Your task to perform on an android device: choose inbox layout in the gmail app Image 0: 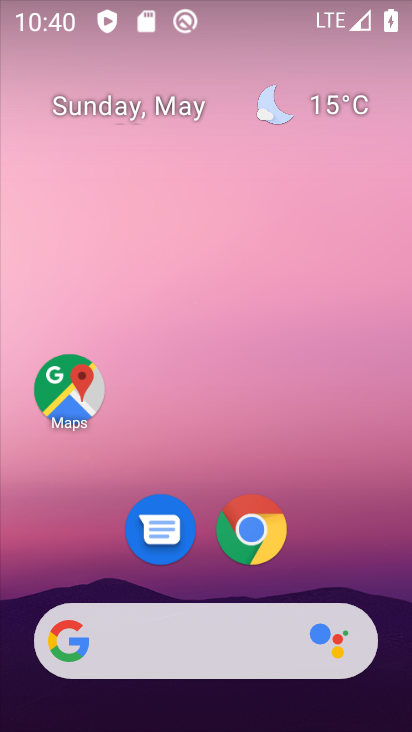
Step 0: drag from (256, 624) to (217, 56)
Your task to perform on an android device: choose inbox layout in the gmail app Image 1: 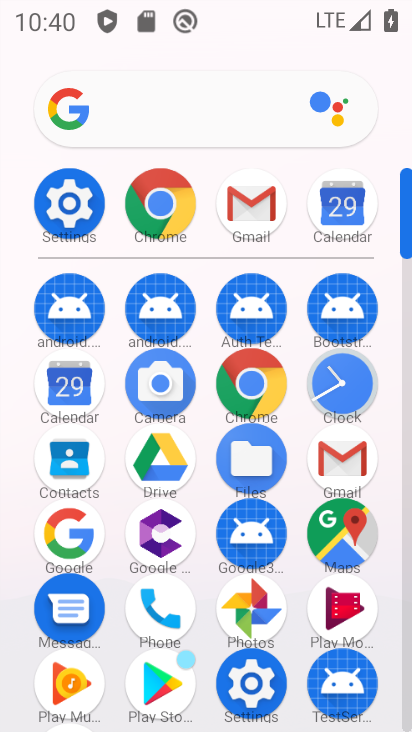
Step 1: click (344, 464)
Your task to perform on an android device: choose inbox layout in the gmail app Image 2: 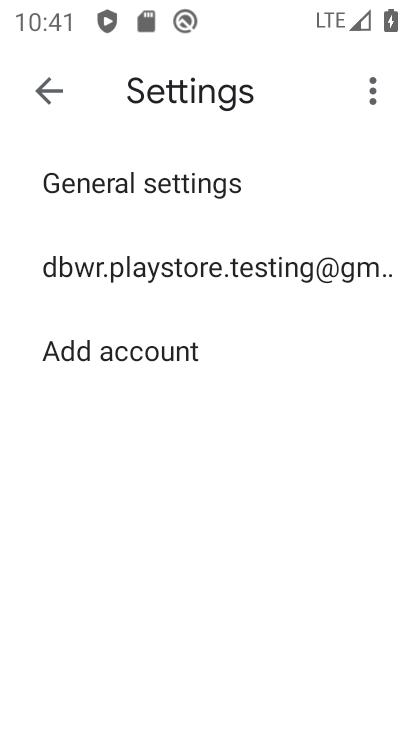
Step 2: press back button
Your task to perform on an android device: choose inbox layout in the gmail app Image 3: 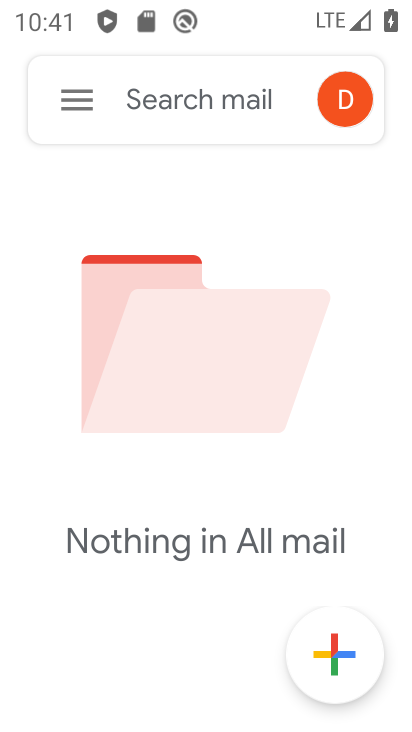
Step 3: click (77, 81)
Your task to perform on an android device: choose inbox layout in the gmail app Image 4: 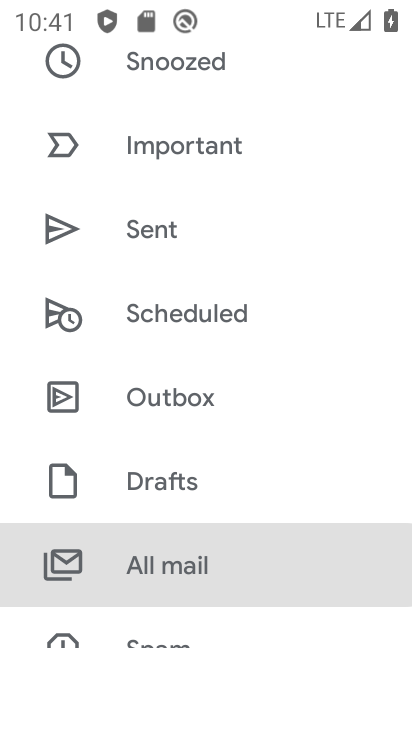
Step 4: drag from (255, 361) to (209, 135)
Your task to perform on an android device: choose inbox layout in the gmail app Image 5: 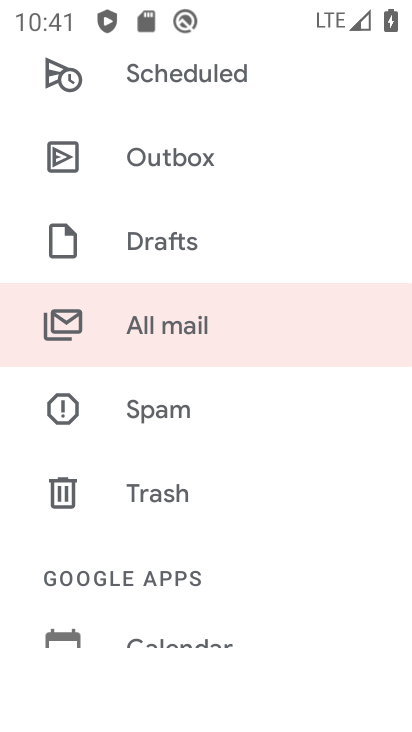
Step 5: drag from (176, 405) to (179, 88)
Your task to perform on an android device: choose inbox layout in the gmail app Image 6: 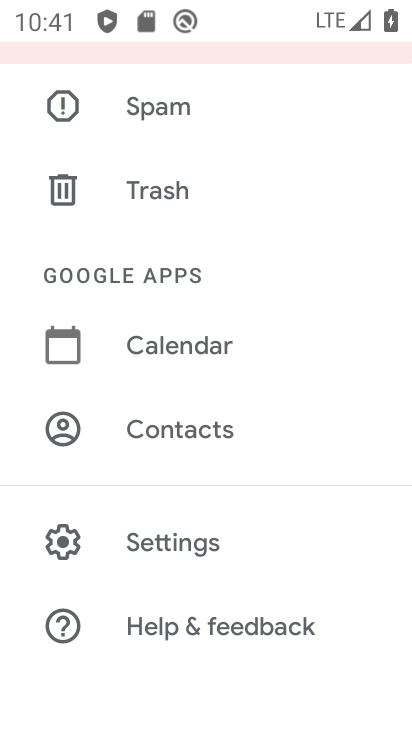
Step 6: click (170, 538)
Your task to perform on an android device: choose inbox layout in the gmail app Image 7: 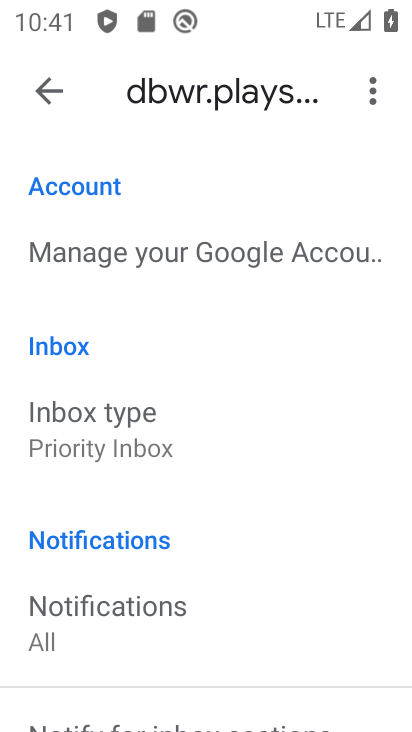
Step 7: click (171, 449)
Your task to perform on an android device: choose inbox layout in the gmail app Image 8: 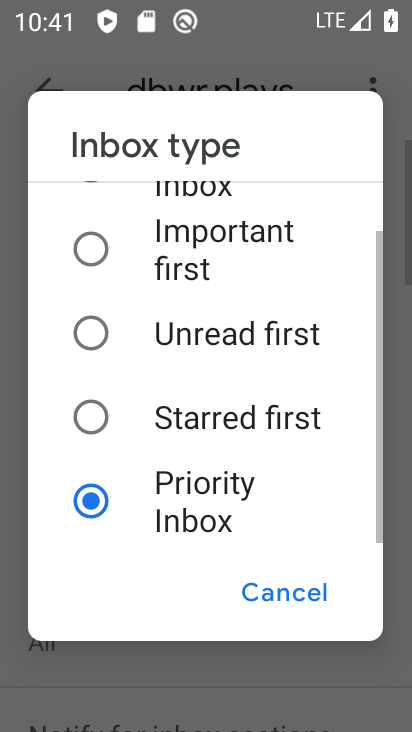
Step 8: click (149, 326)
Your task to perform on an android device: choose inbox layout in the gmail app Image 9: 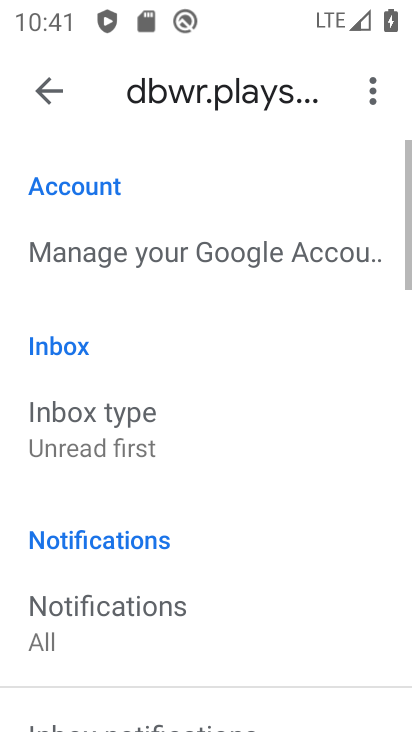
Step 9: task complete